Your task to perform on an android device: Open Google Chrome and click the shortcut for Amazon.com Image 0: 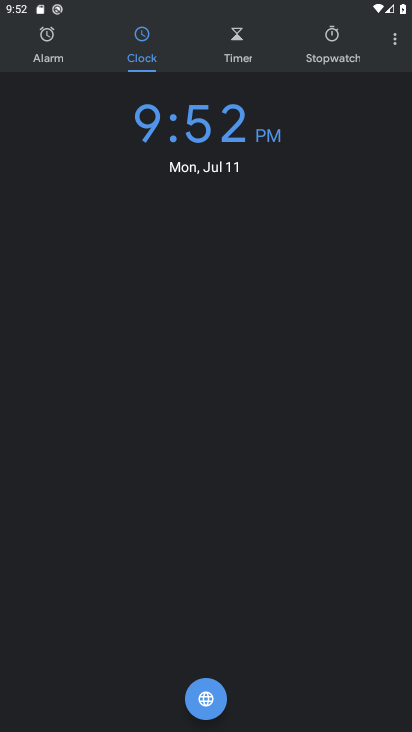
Step 0: press home button
Your task to perform on an android device: Open Google Chrome and click the shortcut for Amazon.com Image 1: 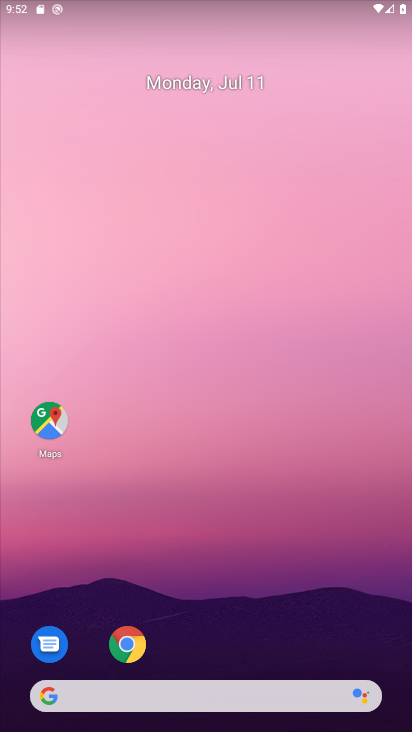
Step 1: drag from (258, 585) to (284, 81)
Your task to perform on an android device: Open Google Chrome and click the shortcut for Amazon.com Image 2: 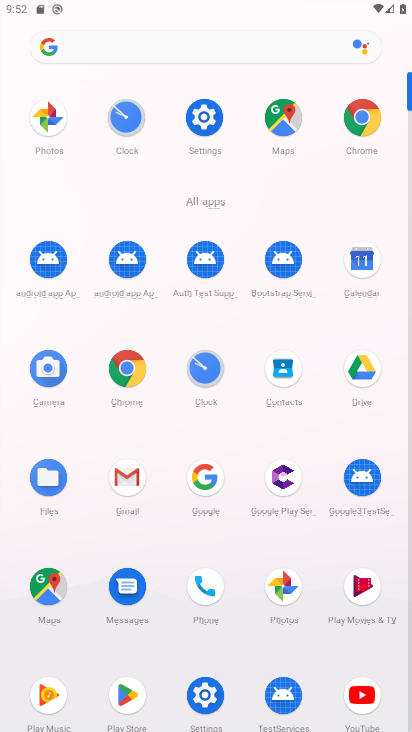
Step 2: click (117, 361)
Your task to perform on an android device: Open Google Chrome and click the shortcut for Amazon.com Image 3: 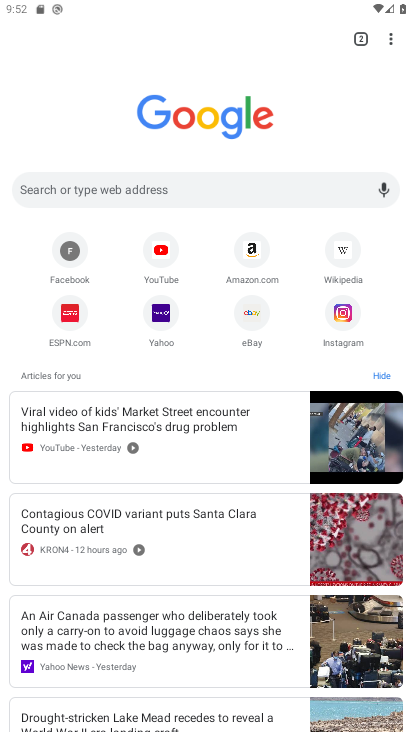
Step 3: click (254, 246)
Your task to perform on an android device: Open Google Chrome and click the shortcut for Amazon.com Image 4: 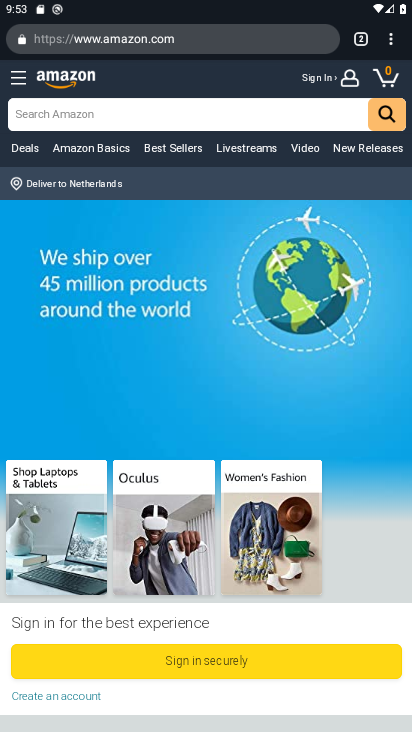
Step 4: task complete